Your task to perform on an android device: change timer sound Image 0: 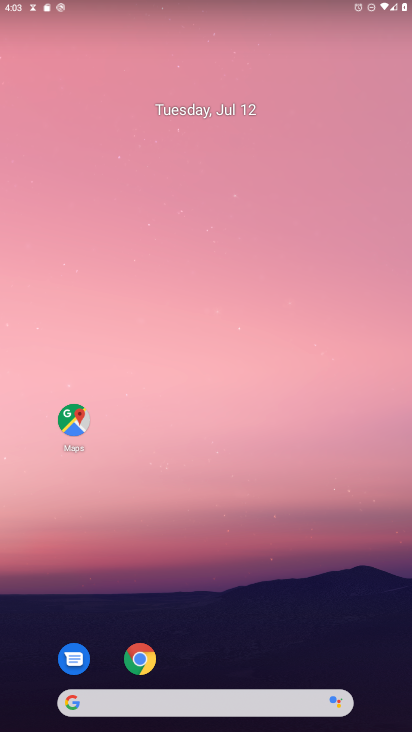
Step 0: drag from (241, 657) to (229, 191)
Your task to perform on an android device: change timer sound Image 1: 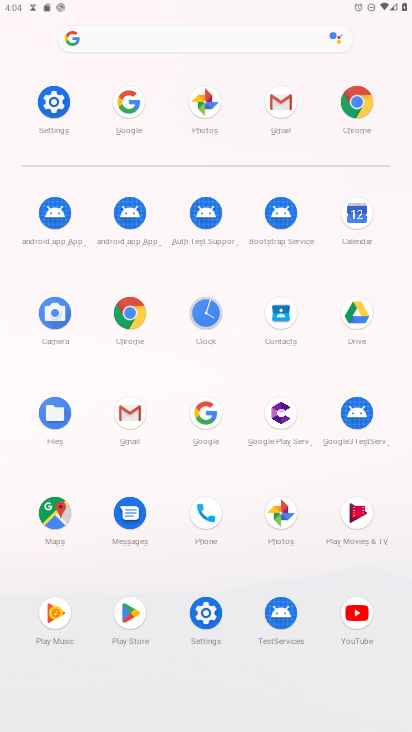
Step 1: click (200, 323)
Your task to perform on an android device: change timer sound Image 2: 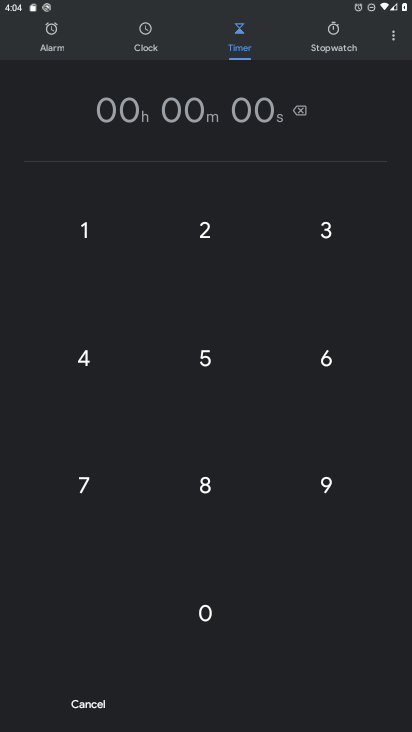
Step 2: click (397, 34)
Your task to perform on an android device: change timer sound Image 3: 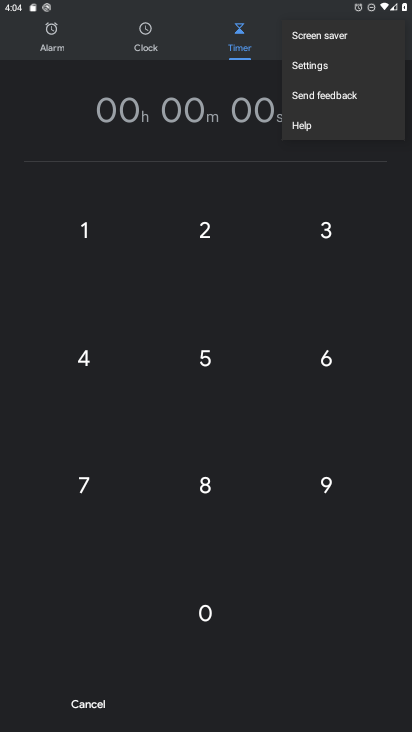
Step 3: click (304, 62)
Your task to perform on an android device: change timer sound Image 4: 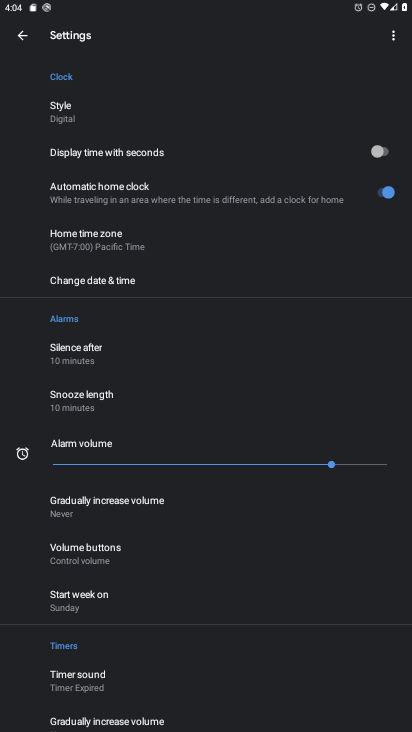
Step 4: click (70, 690)
Your task to perform on an android device: change timer sound Image 5: 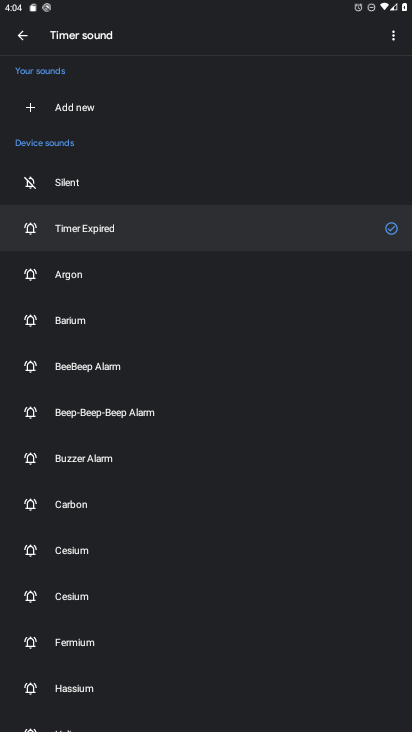
Step 5: click (82, 276)
Your task to perform on an android device: change timer sound Image 6: 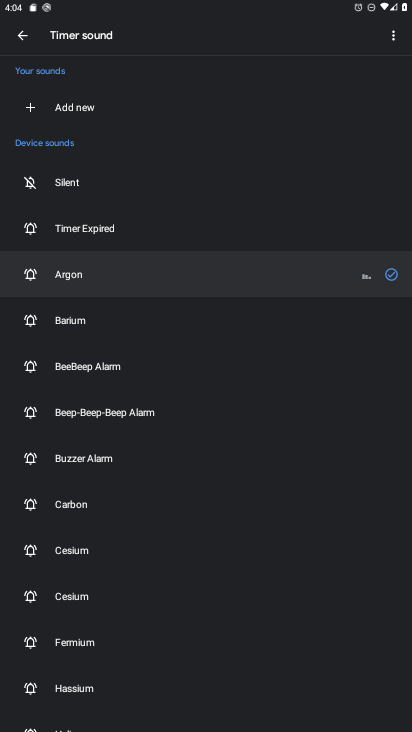
Step 6: task complete